Your task to perform on an android device: turn on improve location accuracy Image 0: 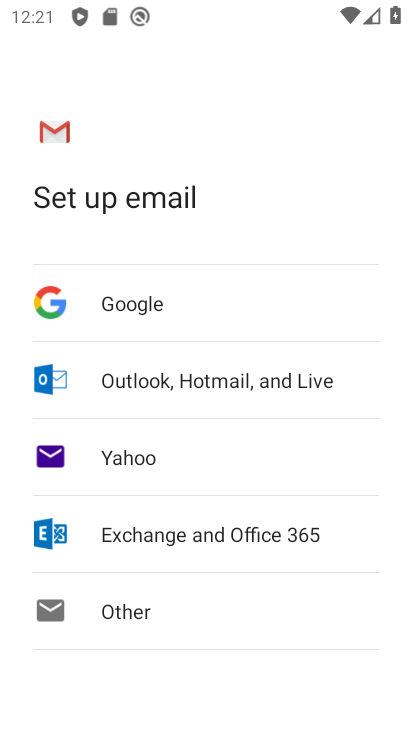
Step 0: press home button
Your task to perform on an android device: turn on improve location accuracy Image 1: 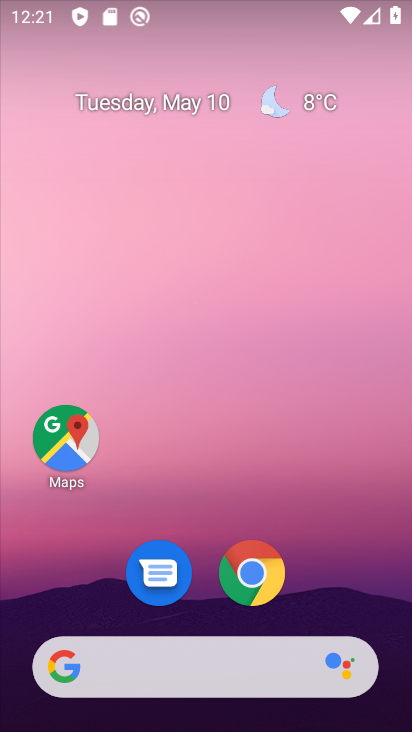
Step 1: drag from (199, 589) to (171, 1)
Your task to perform on an android device: turn on improve location accuracy Image 2: 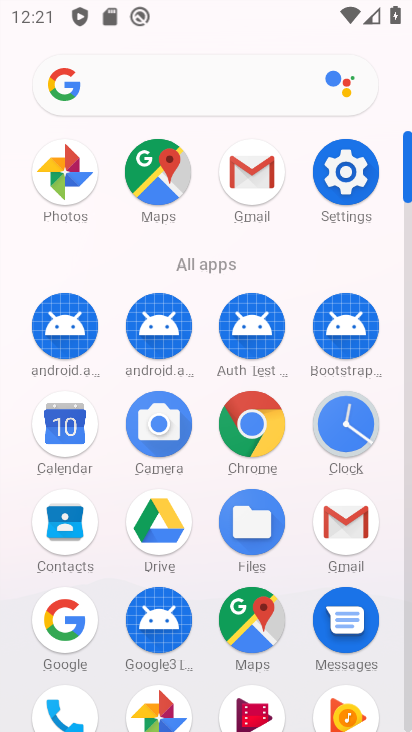
Step 2: click (365, 196)
Your task to perform on an android device: turn on improve location accuracy Image 3: 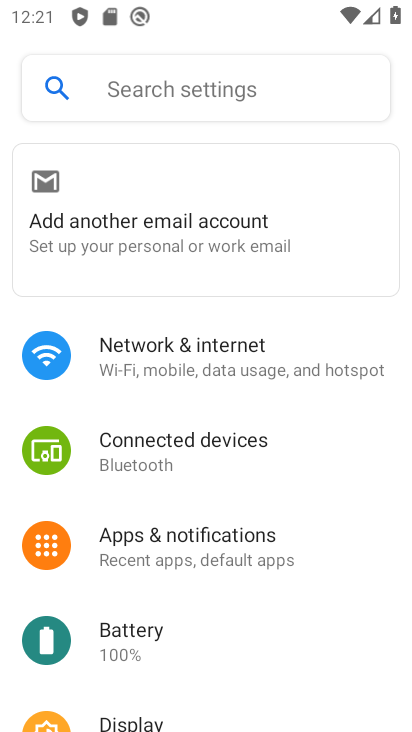
Step 3: drag from (193, 650) to (254, 2)
Your task to perform on an android device: turn on improve location accuracy Image 4: 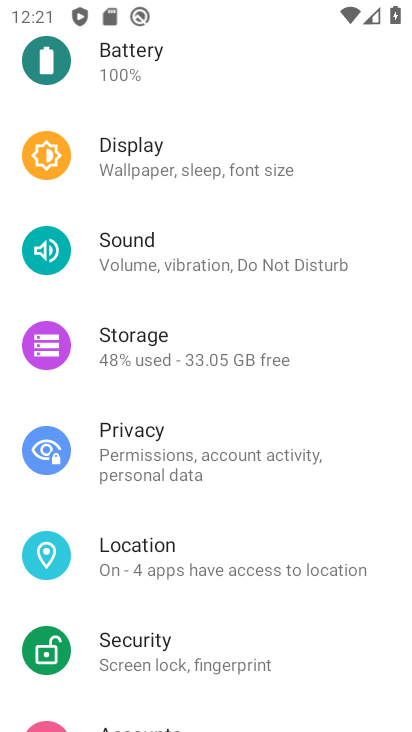
Step 4: click (189, 568)
Your task to perform on an android device: turn on improve location accuracy Image 5: 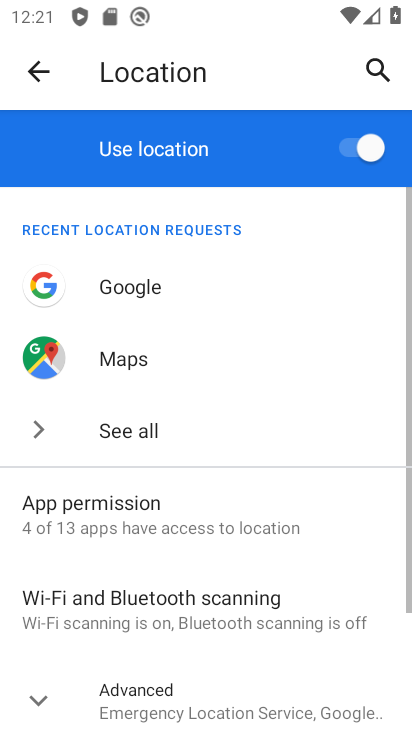
Step 5: drag from (141, 603) to (136, 274)
Your task to perform on an android device: turn on improve location accuracy Image 6: 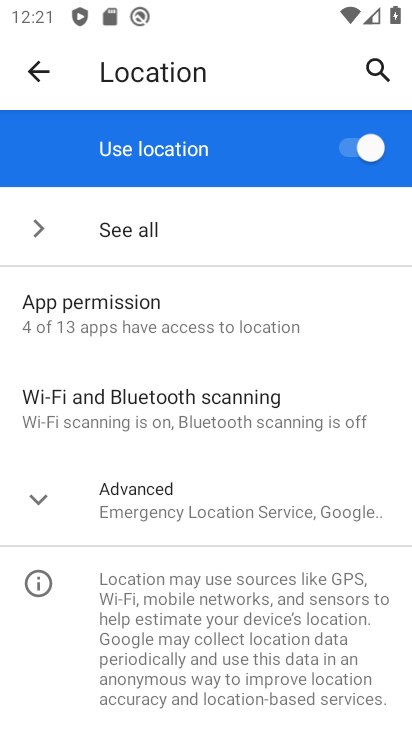
Step 6: click (35, 494)
Your task to perform on an android device: turn on improve location accuracy Image 7: 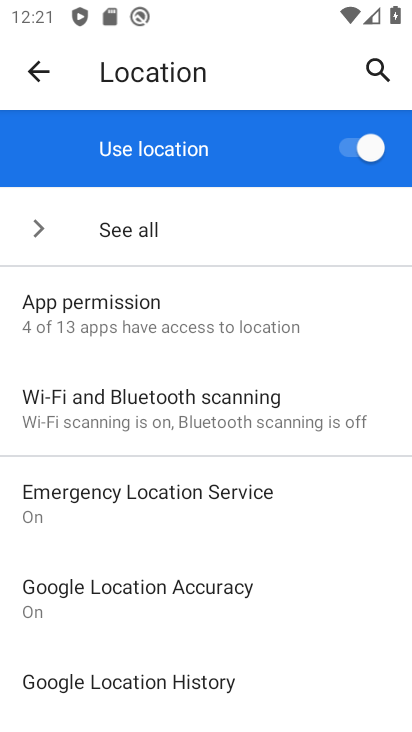
Step 7: click (168, 598)
Your task to perform on an android device: turn on improve location accuracy Image 8: 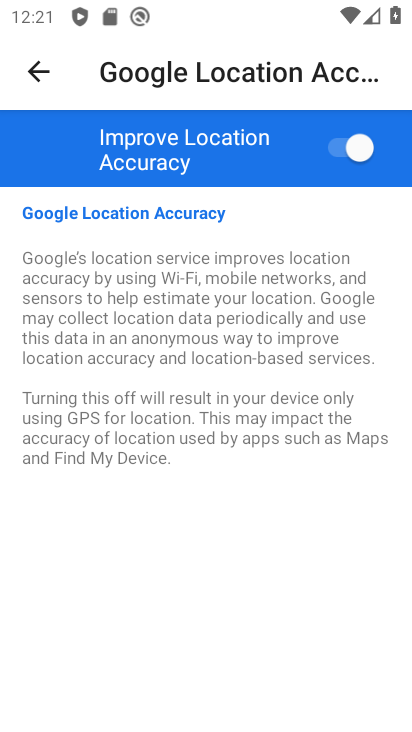
Step 8: task complete